Your task to perform on an android device: Open Google Chrome and click the shortcut for Amazon.com Image 0: 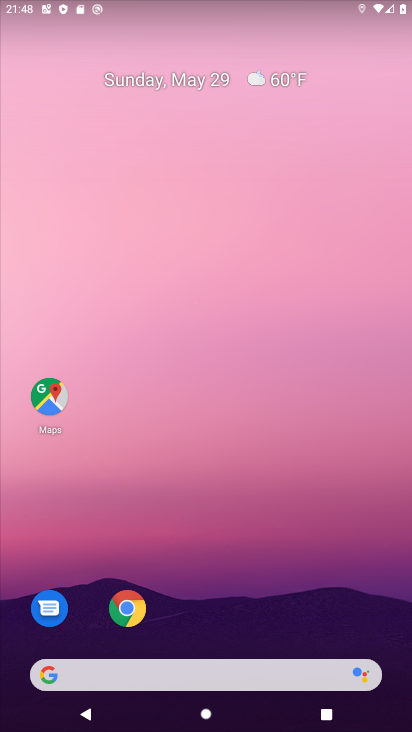
Step 0: drag from (380, 632) to (386, 80)
Your task to perform on an android device: Open Google Chrome and click the shortcut for Amazon.com Image 1: 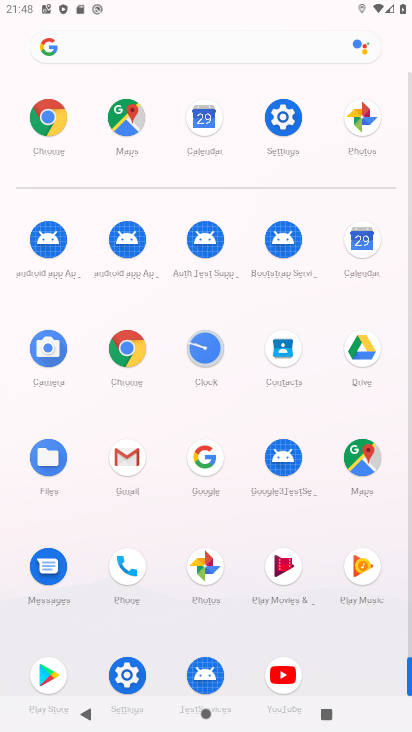
Step 1: click (130, 361)
Your task to perform on an android device: Open Google Chrome and click the shortcut for Amazon.com Image 2: 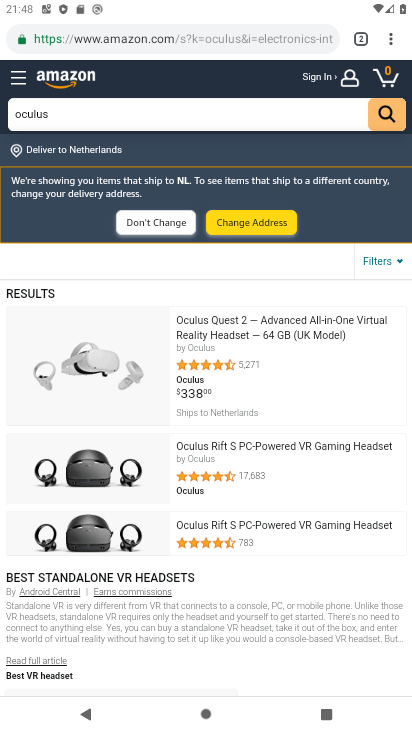
Step 2: task complete